Your task to perform on an android device: change the clock style Image 0: 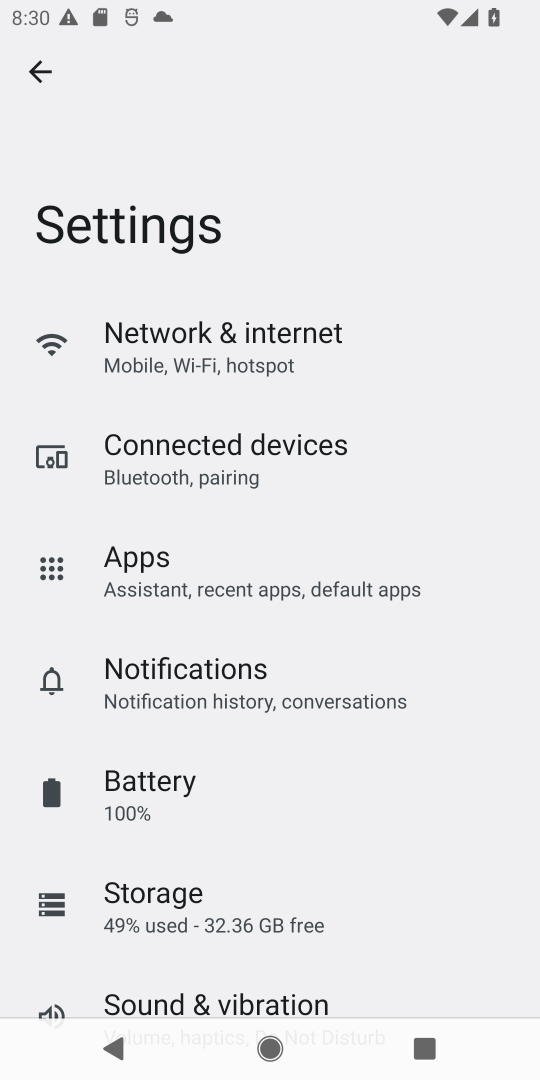
Step 0: press home button
Your task to perform on an android device: change the clock style Image 1: 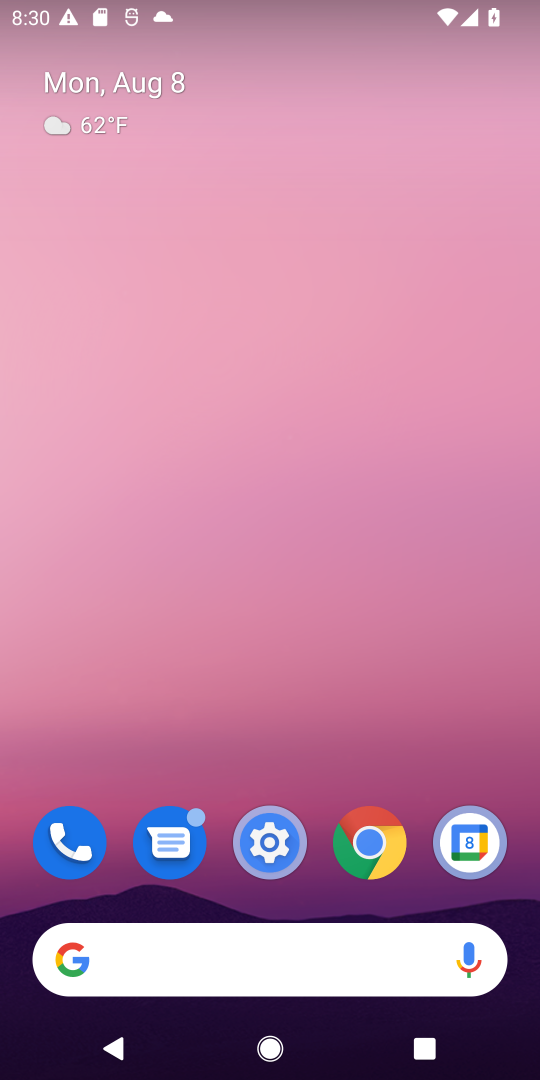
Step 1: drag from (280, 688) to (390, 0)
Your task to perform on an android device: change the clock style Image 2: 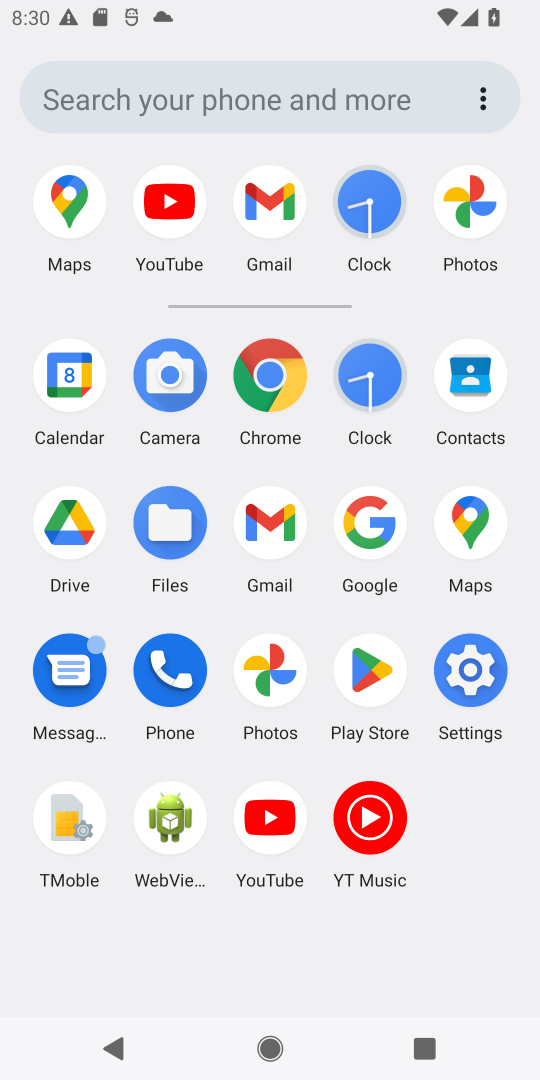
Step 2: click (359, 195)
Your task to perform on an android device: change the clock style Image 3: 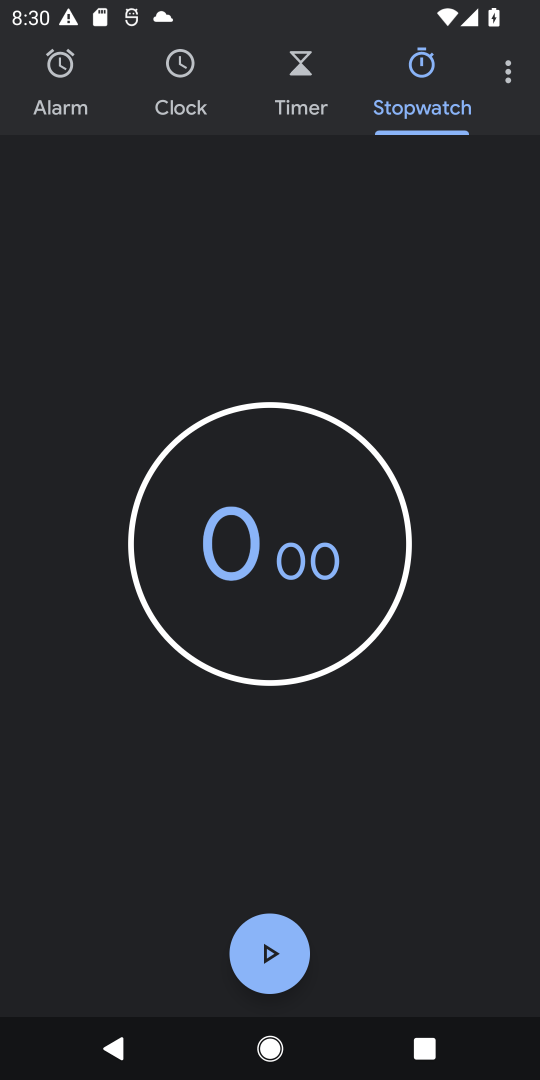
Step 3: click (183, 60)
Your task to perform on an android device: change the clock style Image 4: 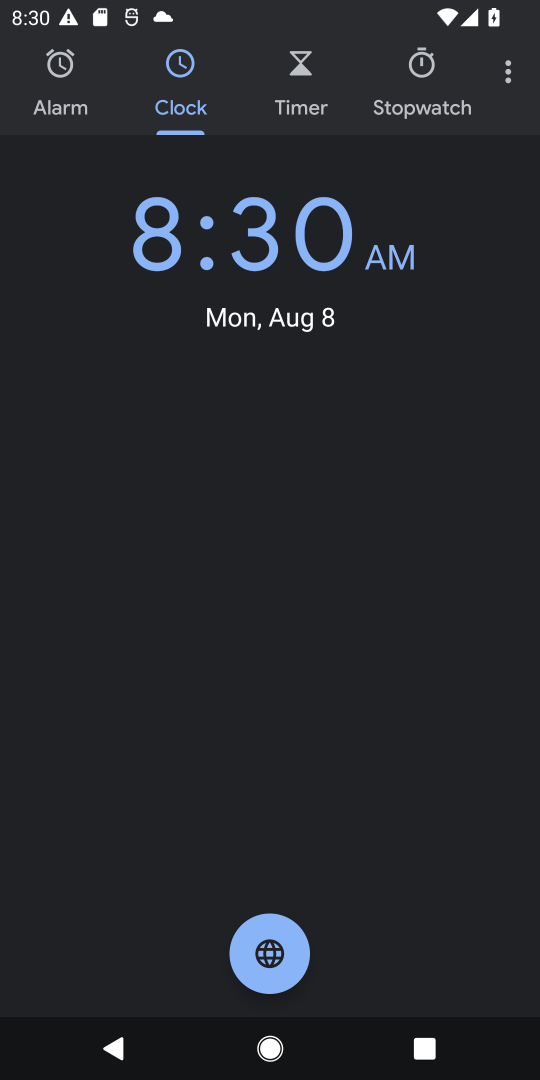
Step 4: click (517, 69)
Your task to perform on an android device: change the clock style Image 5: 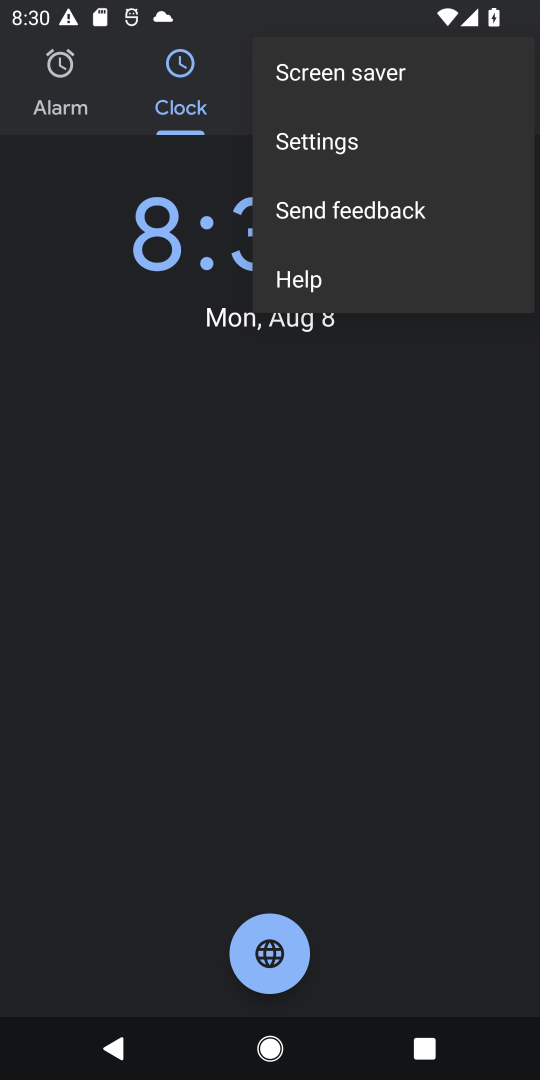
Step 5: click (366, 141)
Your task to perform on an android device: change the clock style Image 6: 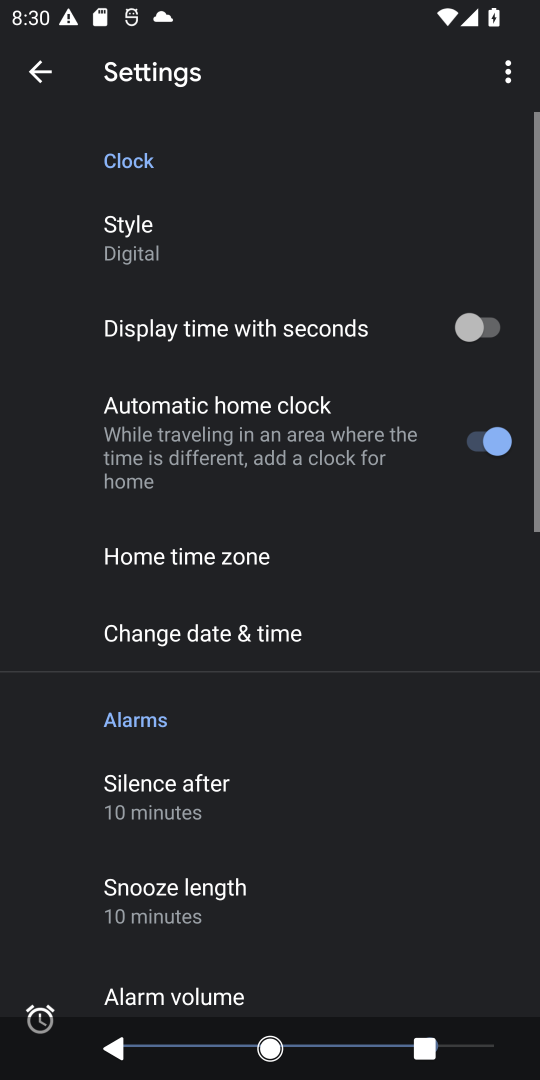
Step 6: click (173, 238)
Your task to perform on an android device: change the clock style Image 7: 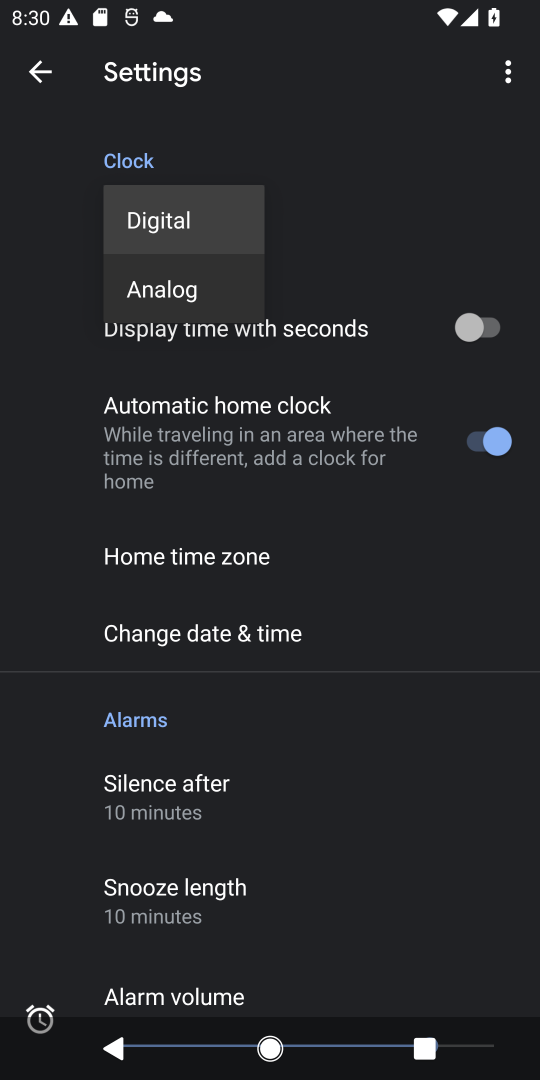
Step 7: click (178, 277)
Your task to perform on an android device: change the clock style Image 8: 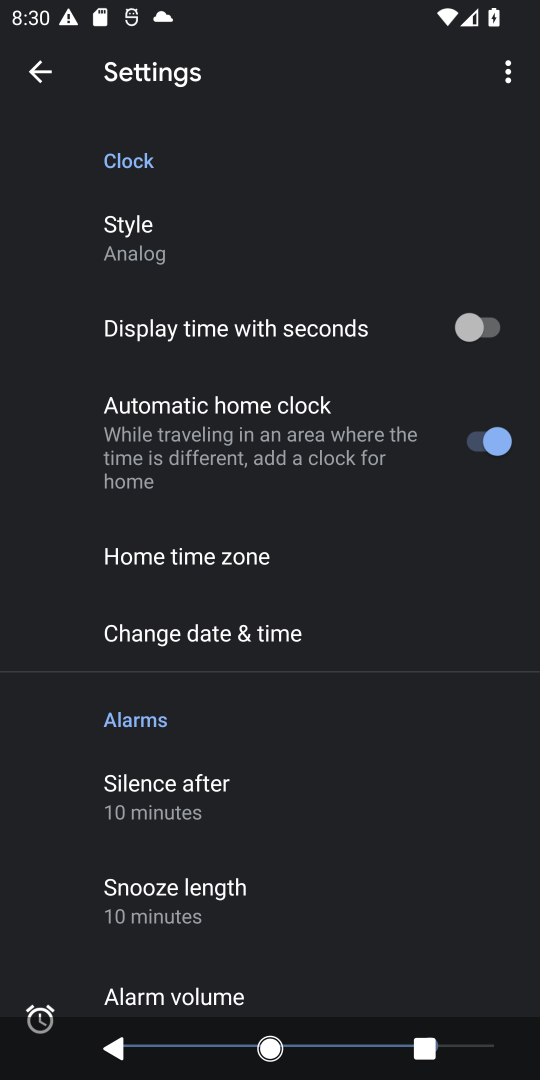
Step 8: click (41, 67)
Your task to perform on an android device: change the clock style Image 9: 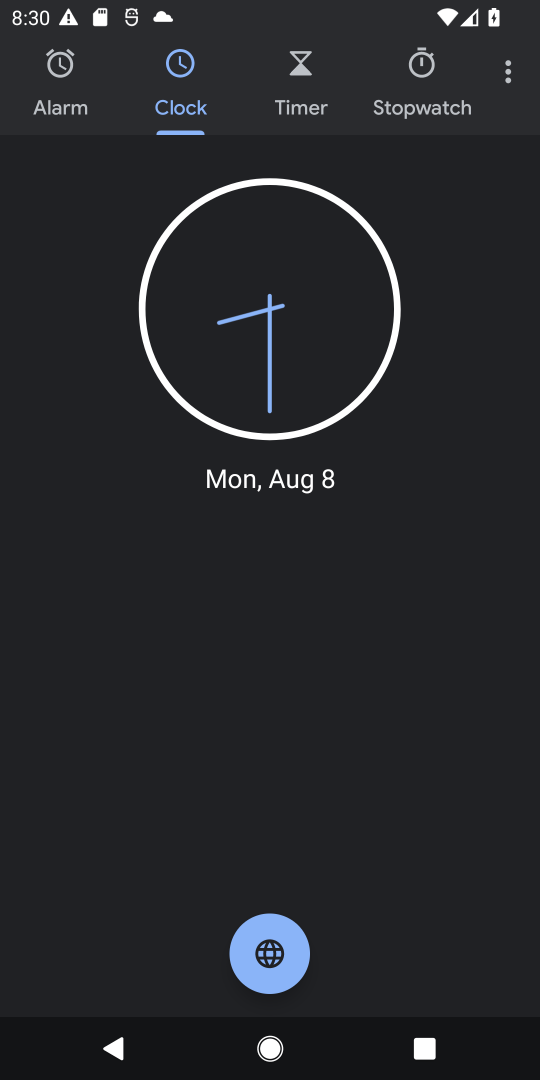
Step 9: task complete